Your task to perform on an android device: find snoozed emails in the gmail app Image 0: 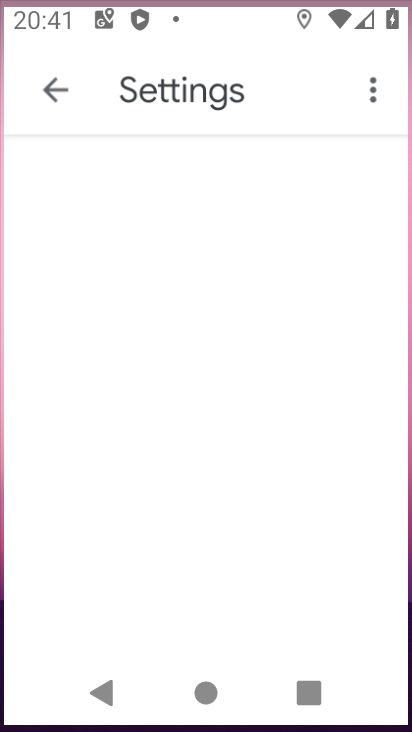
Step 0: drag from (227, 498) to (390, 584)
Your task to perform on an android device: find snoozed emails in the gmail app Image 1: 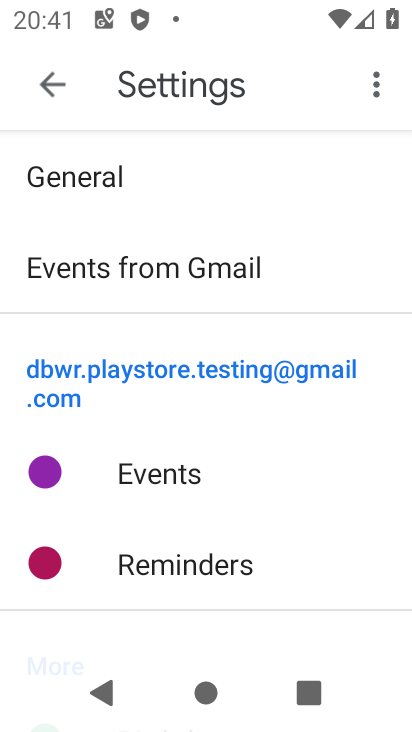
Step 1: press home button
Your task to perform on an android device: find snoozed emails in the gmail app Image 2: 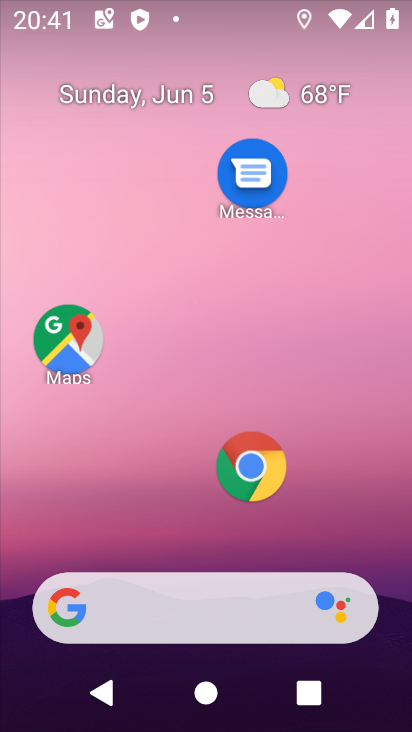
Step 2: drag from (200, 522) to (223, 160)
Your task to perform on an android device: find snoozed emails in the gmail app Image 3: 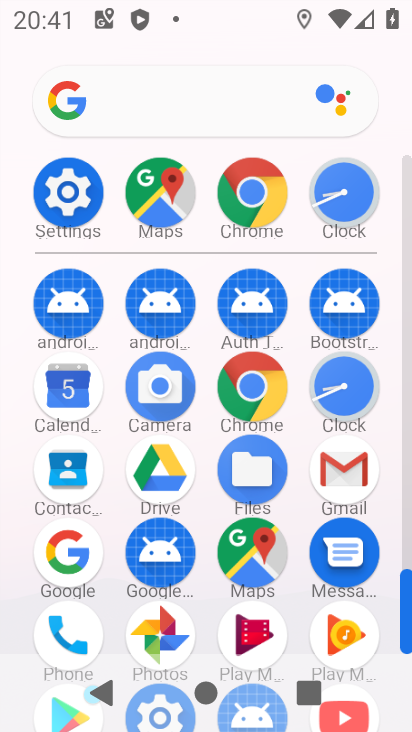
Step 3: click (330, 450)
Your task to perform on an android device: find snoozed emails in the gmail app Image 4: 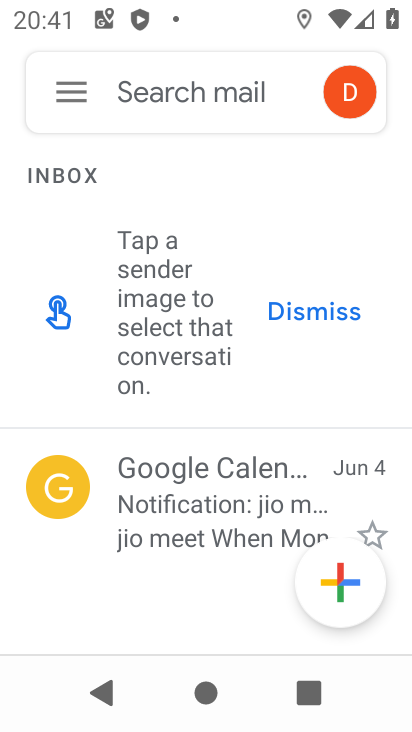
Step 4: click (46, 108)
Your task to perform on an android device: find snoozed emails in the gmail app Image 5: 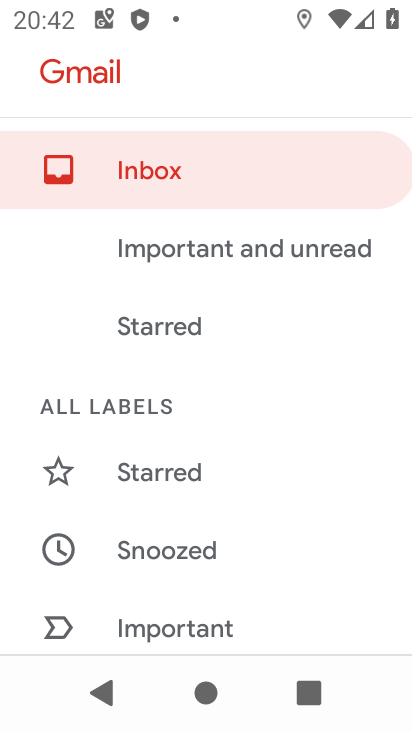
Step 5: drag from (214, 577) to (223, 226)
Your task to perform on an android device: find snoozed emails in the gmail app Image 6: 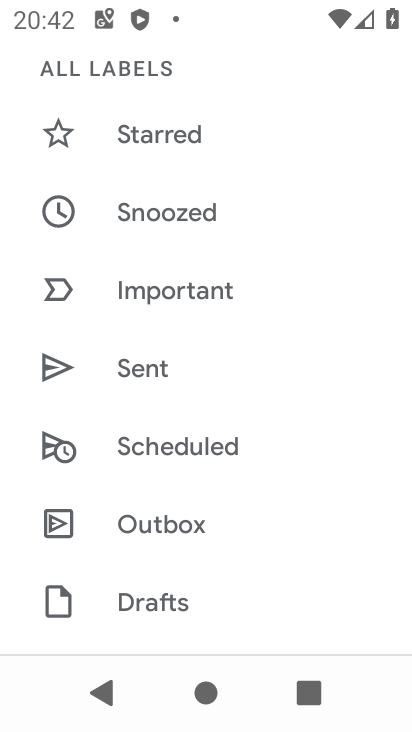
Step 6: click (119, 196)
Your task to perform on an android device: find snoozed emails in the gmail app Image 7: 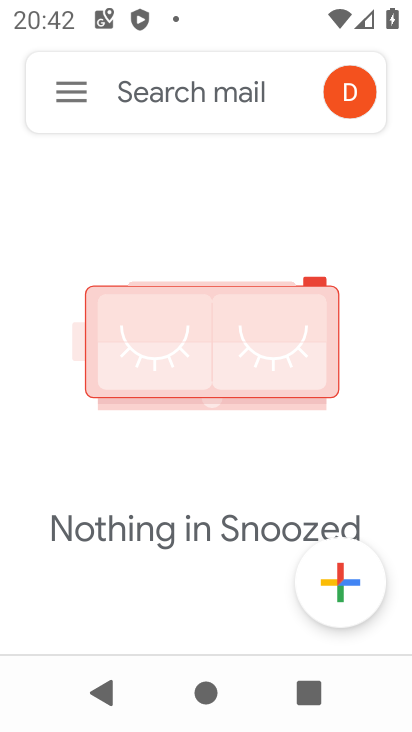
Step 7: drag from (236, 528) to (302, 231)
Your task to perform on an android device: find snoozed emails in the gmail app Image 8: 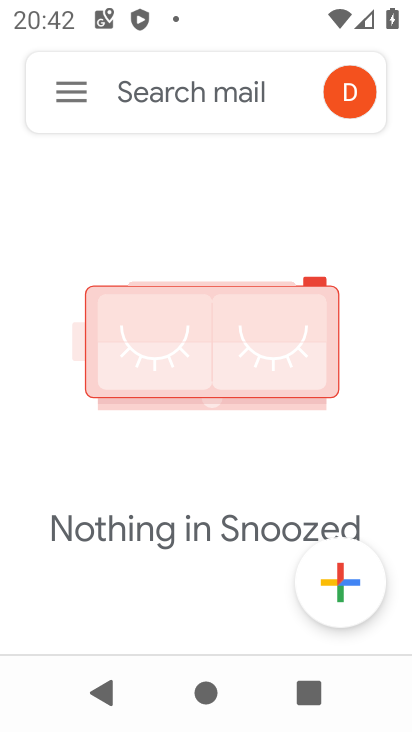
Step 8: click (79, 87)
Your task to perform on an android device: find snoozed emails in the gmail app Image 9: 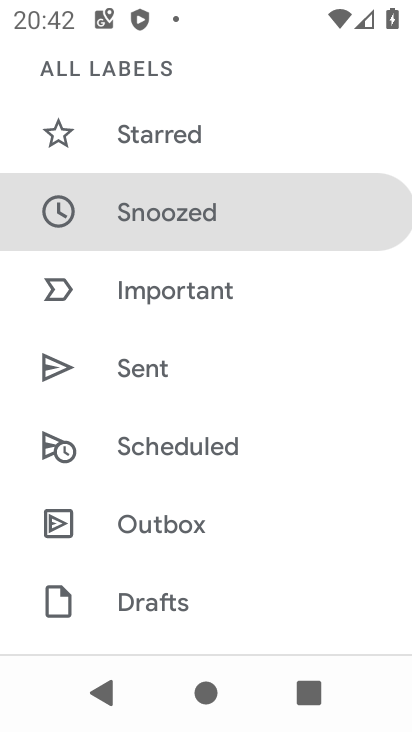
Step 9: click (139, 236)
Your task to perform on an android device: find snoozed emails in the gmail app Image 10: 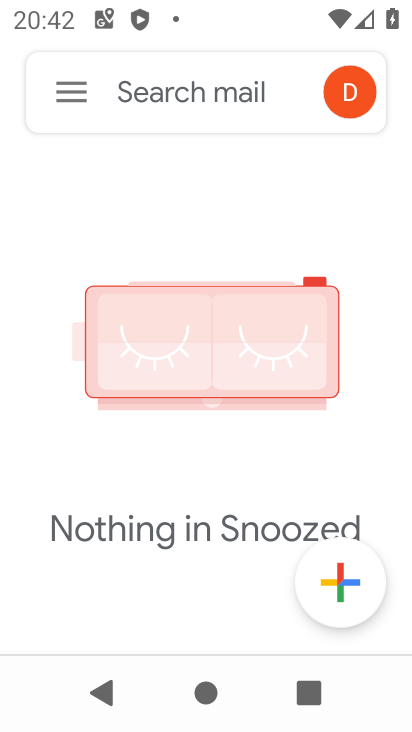
Step 10: task complete